Your task to perform on an android device: Go to Amazon Image 0: 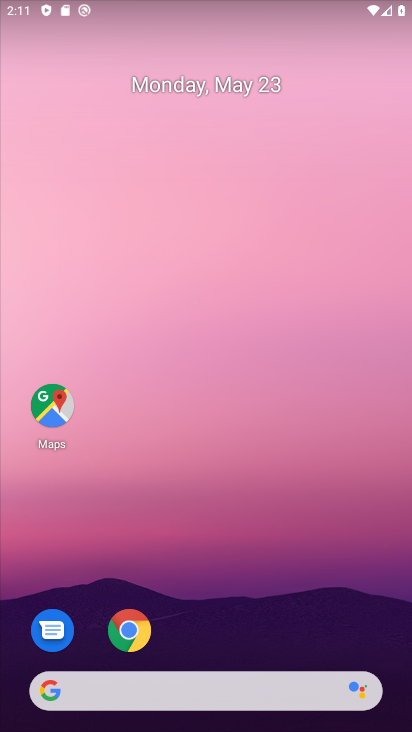
Step 0: click (142, 643)
Your task to perform on an android device: Go to Amazon Image 1: 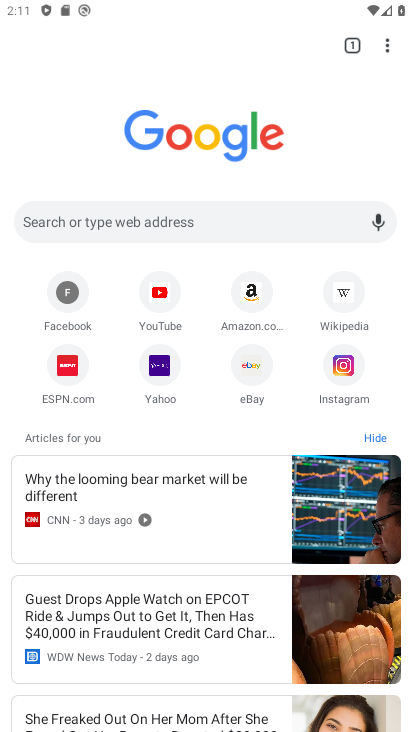
Step 1: click (242, 291)
Your task to perform on an android device: Go to Amazon Image 2: 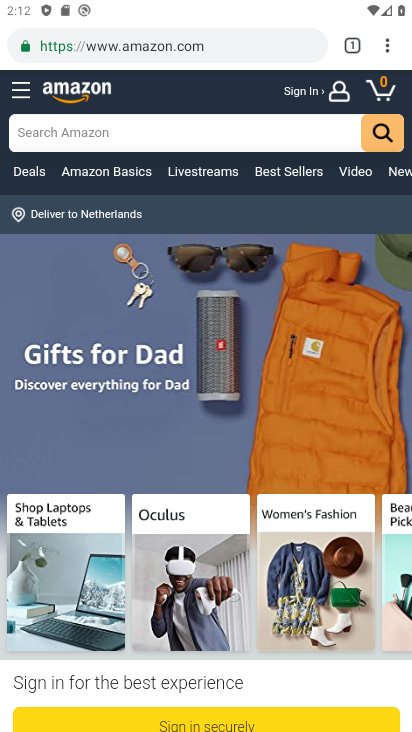
Step 2: task complete